Your task to perform on an android device: Open the phone app and click the voicemail tab. Image 0: 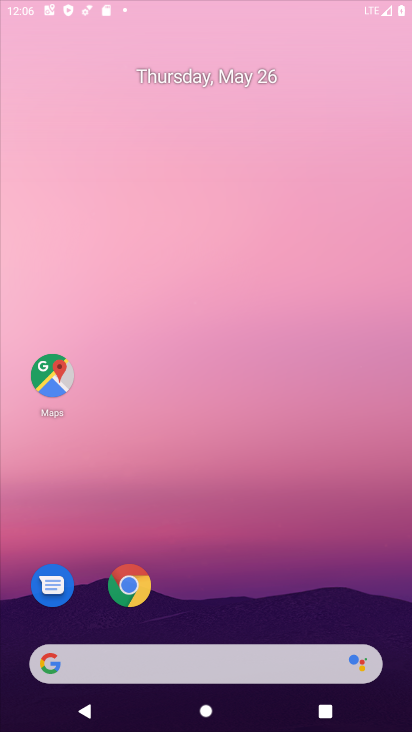
Step 0: click (160, 40)
Your task to perform on an android device: Open the phone app and click the voicemail tab. Image 1: 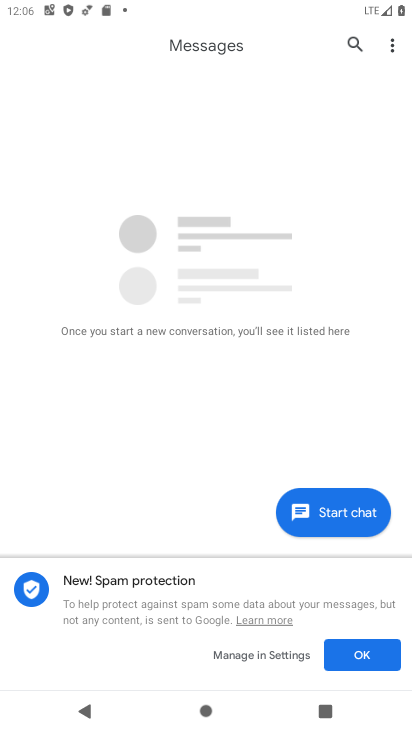
Step 1: press back button
Your task to perform on an android device: Open the phone app and click the voicemail tab. Image 2: 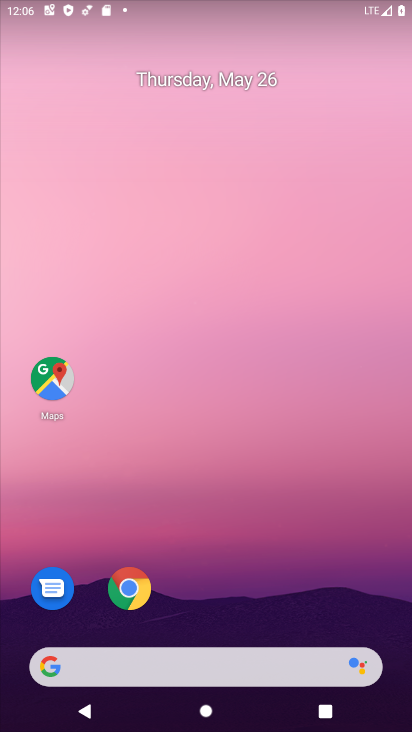
Step 2: drag from (162, 546) to (130, 23)
Your task to perform on an android device: Open the phone app and click the voicemail tab. Image 3: 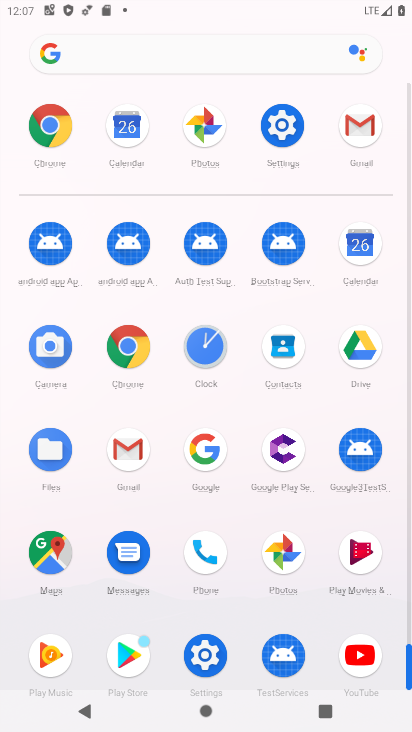
Step 3: drag from (13, 599) to (9, 241)
Your task to perform on an android device: Open the phone app and click the voicemail tab. Image 4: 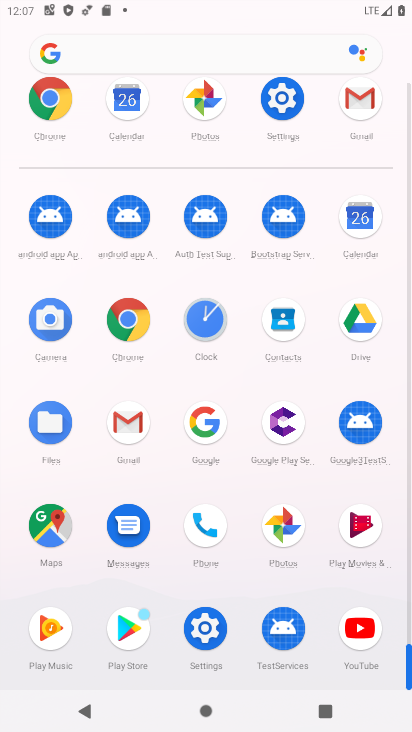
Step 4: drag from (5, 506) to (10, 214)
Your task to perform on an android device: Open the phone app and click the voicemail tab. Image 5: 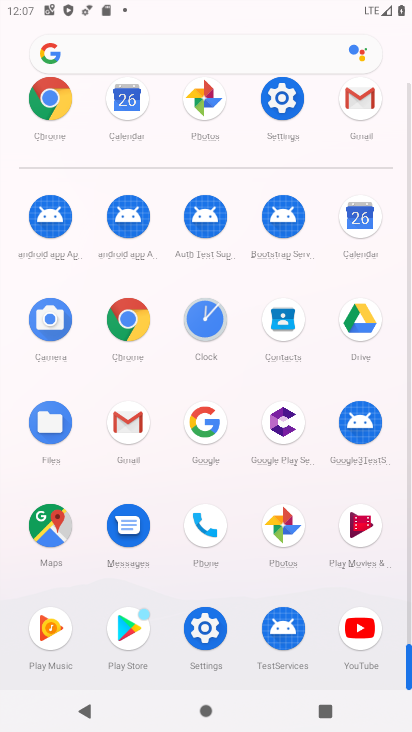
Step 5: drag from (10, 580) to (31, 225)
Your task to perform on an android device: Open the phone app and click the voicemail tab. Image 6: 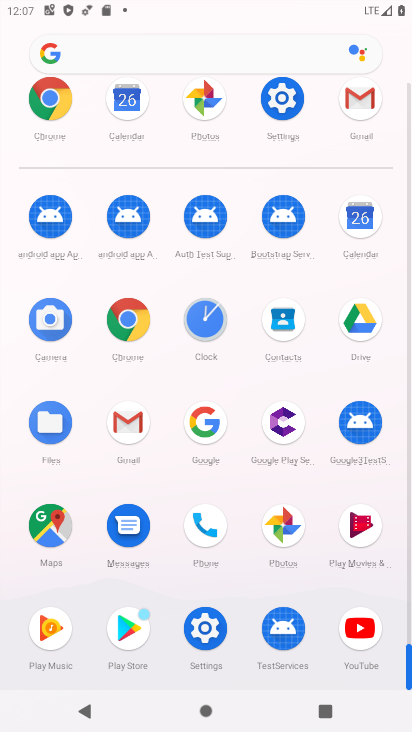
Step 6: click (205, 519)
Your task to perform on an android device: Open the phone app and click the voicemail tab. Image 7: 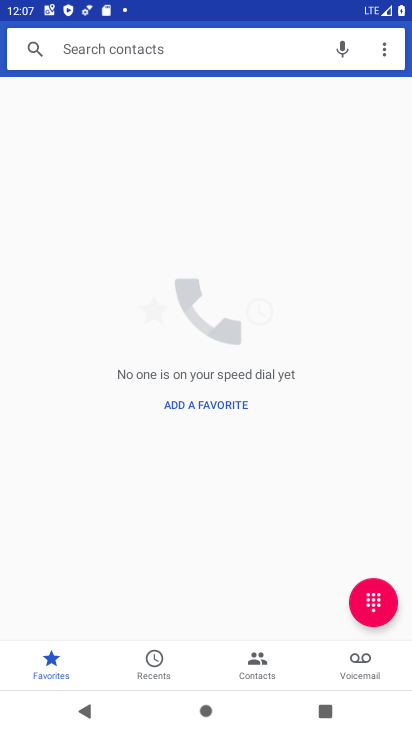
Step 7: click (357, 658)
Your task to perform on an android device: Open the phone app and click the voicemail tab. Image 8: 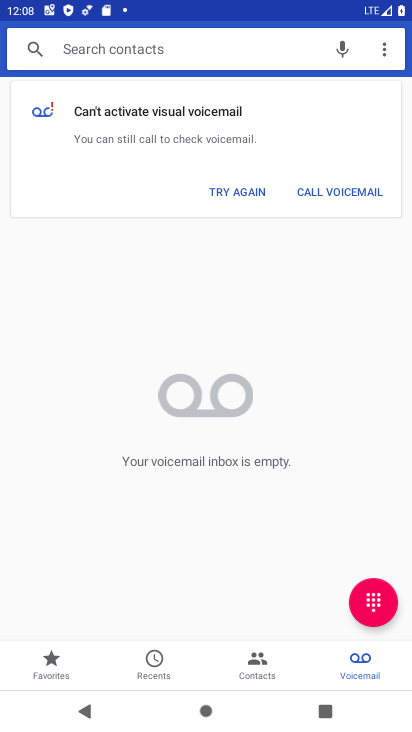
Step 8: task complete